Your task to perform on an android device: turn off airplane mode Image 0: 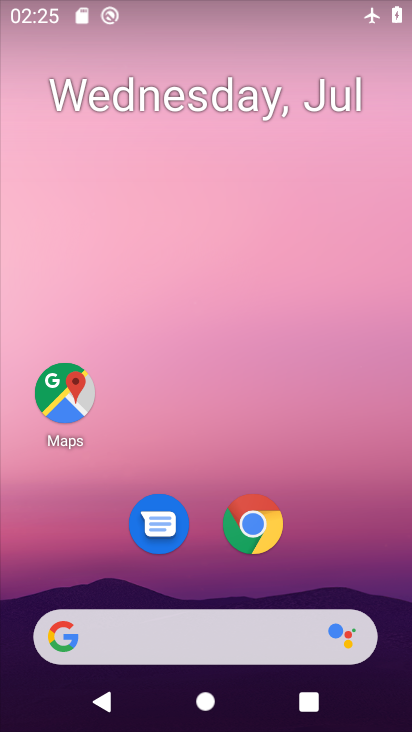
Step 0: drag from (343, 560) to (395, 0)
Your task to perform on an android device: turn off airplane mode Image 1: 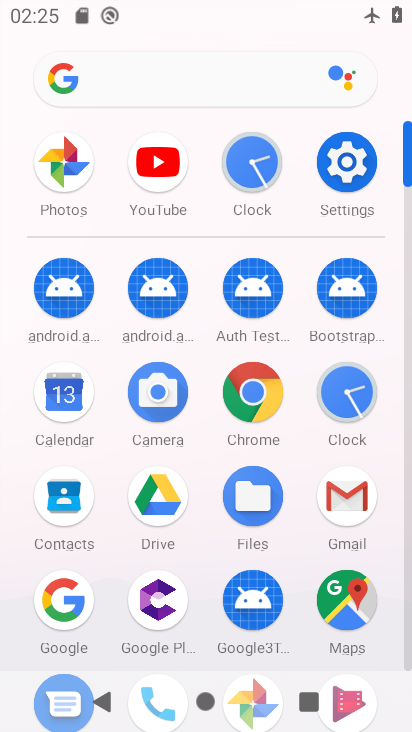
Step 1: click (338, 149)
Your task to perform on an android device: turn off airplane mode Image 2: 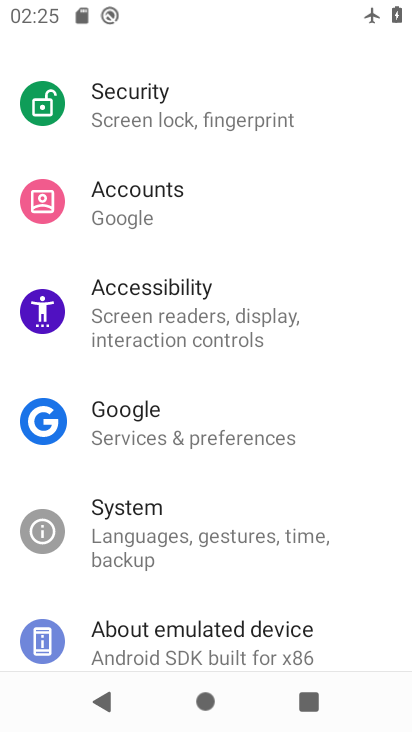
Step 2: drag from (194, 175) to (259, 729)
Your task to perform on an android device: turn off airplane mode Image 3: 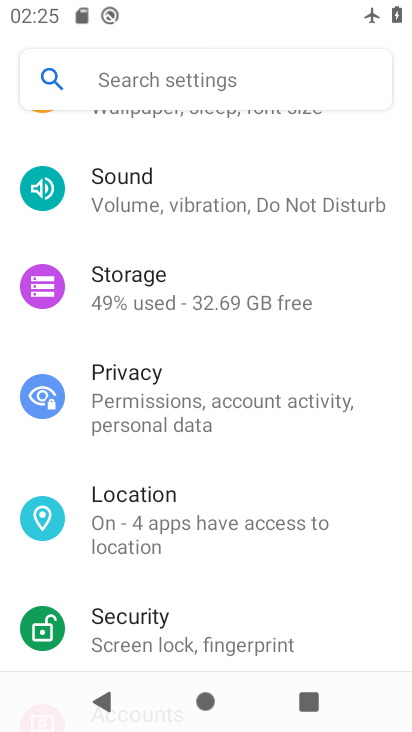
Step 3: drag from (215, 158) to (218, 724)
Your task to perform on an android device: turn off airplane mode Image 4: 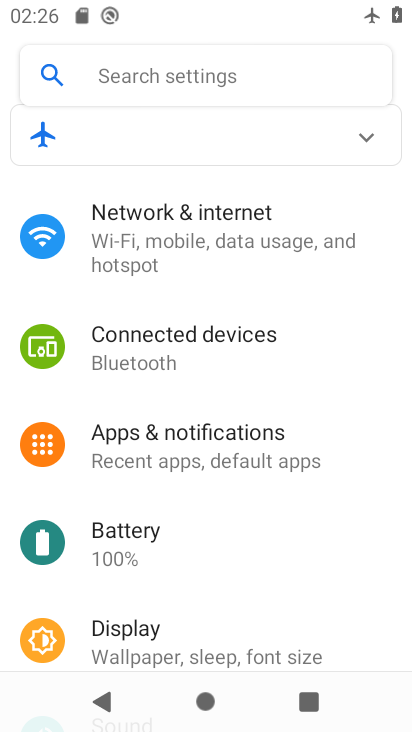
Step 4: click (206, 244)
Your task to perform on an android device: turn off airplane mode Image 5: 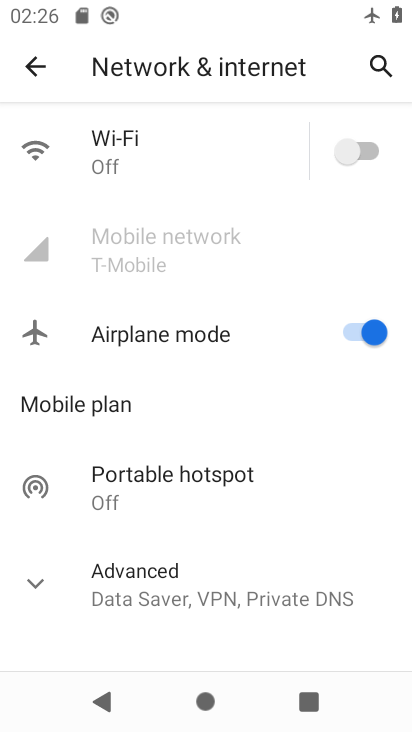
Step 5: click (362, 331)
Your task to perform on an android device: turn off airplane mode Image 6: 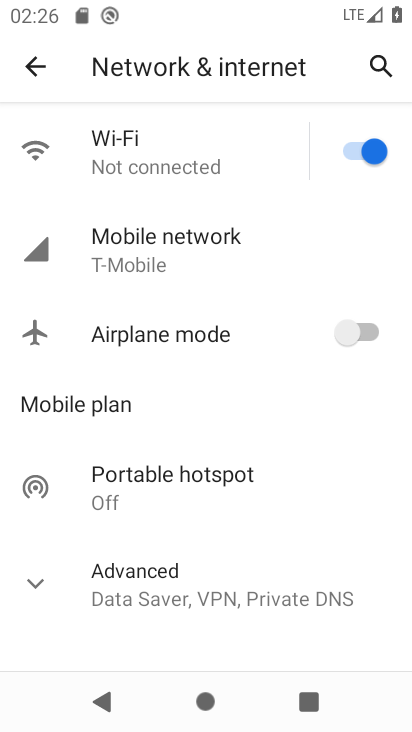
Step 6: task complete